Your task to perform on an android device: Open Amazon Image 0: 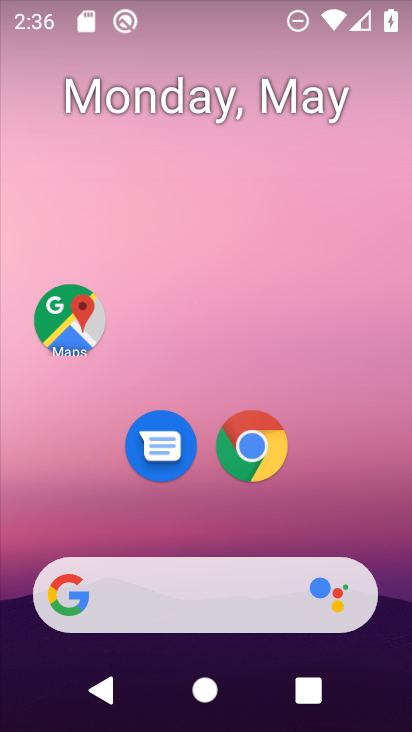
Step 0: click (257, 447)
Your task to perform on an android device: Open Amazon Image 1: 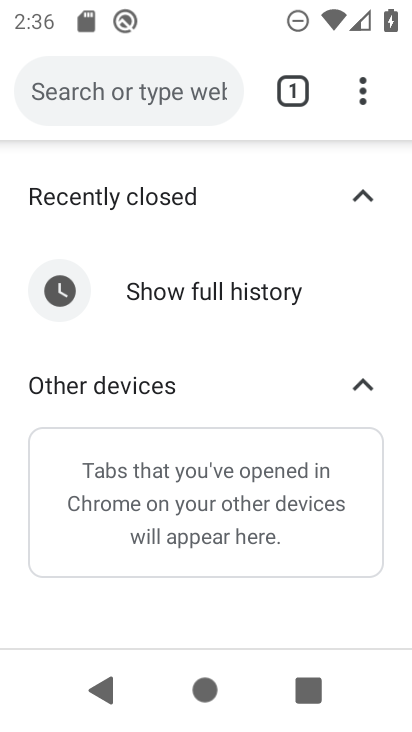
Step 1: click (303, 100)
Your task to perform on an android device: Open Amazon Image 2: 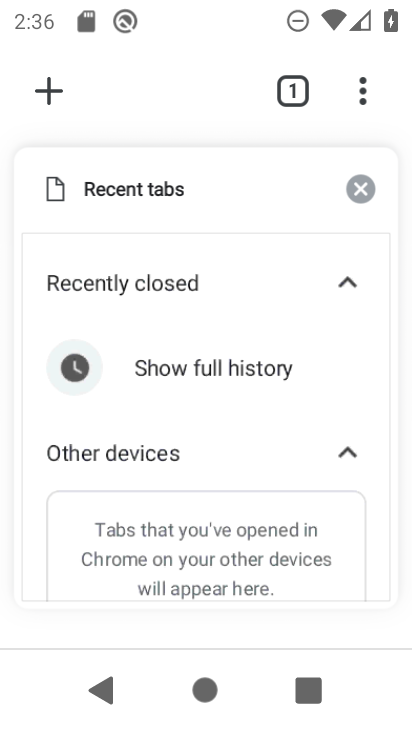
Step 2: click (44, 85)
Your task to perform on an android device: Open Amazon Image 3: 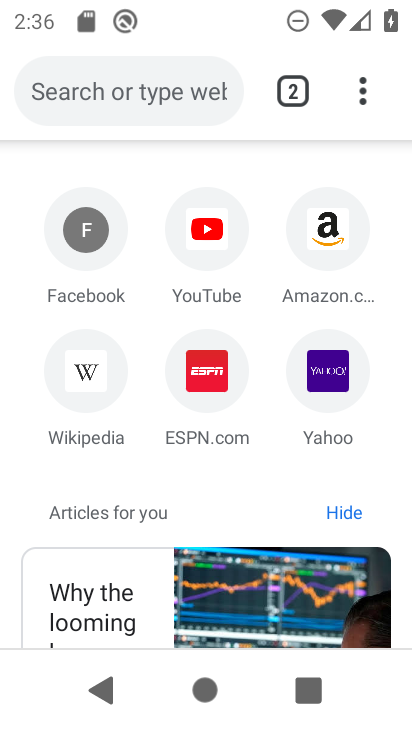
Step 3: click (308, 246)
Your task to perform on an android device: Open Amazon Image 4: 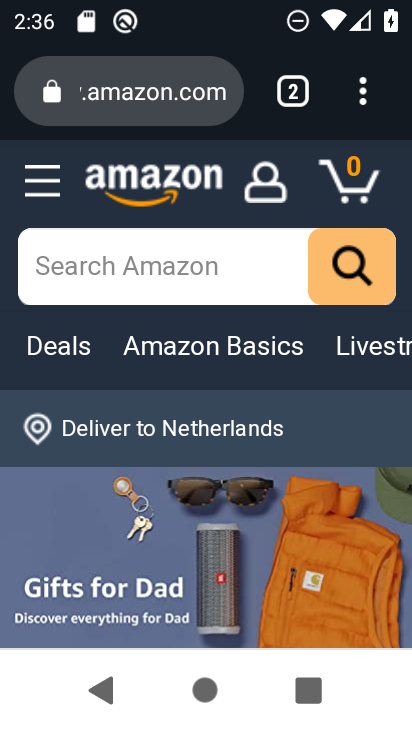
Step 4: task complete